Your task to perform on an android device: Go to eBay Image 0: 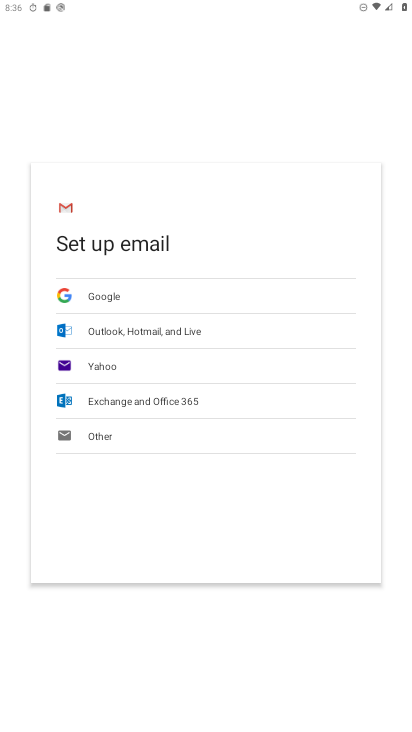
Step 0: press home button
Your task to perform on an android device: Go to eBay Image 1: 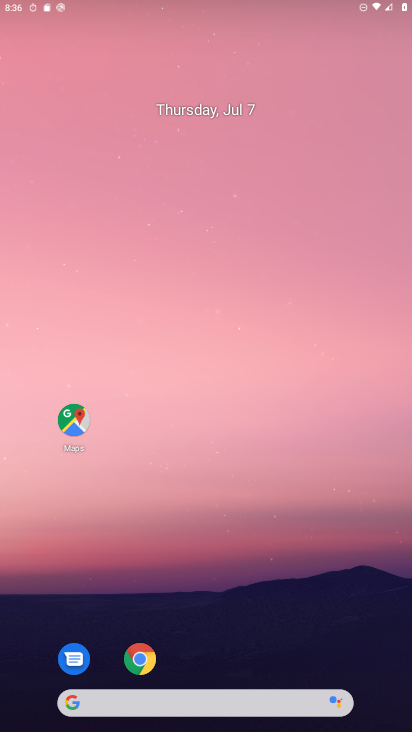
Step 1: drag from (363, 630) to (144, 20)
Your task to perform on an android device: Go to eBay Image 2: 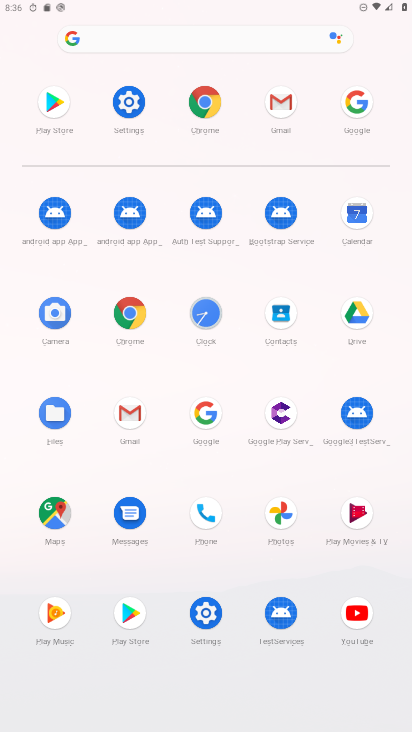
Step 2: click (204, 423)
Your task to perform on an android device: Go to eBay Image 3: 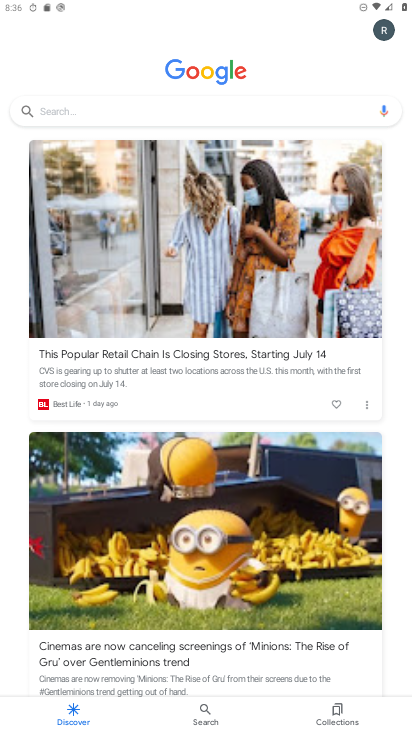
Step 3: click (96, 114)
Your task to perform on an android device: Go to eBay Image 4: 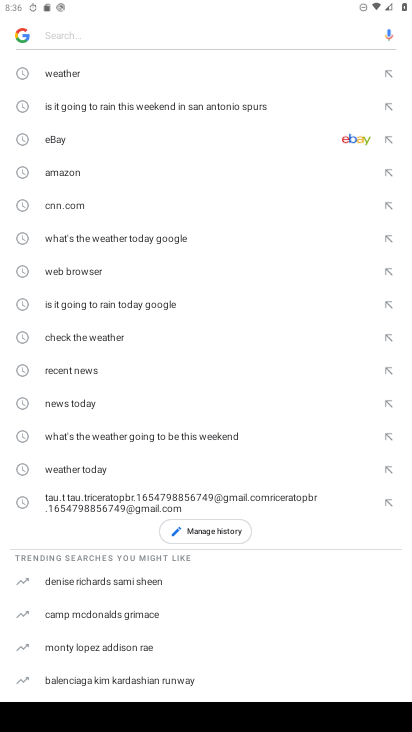
Step 4: click (55, 134)
Your task to perform on an android device: Go to eBay Image 5: 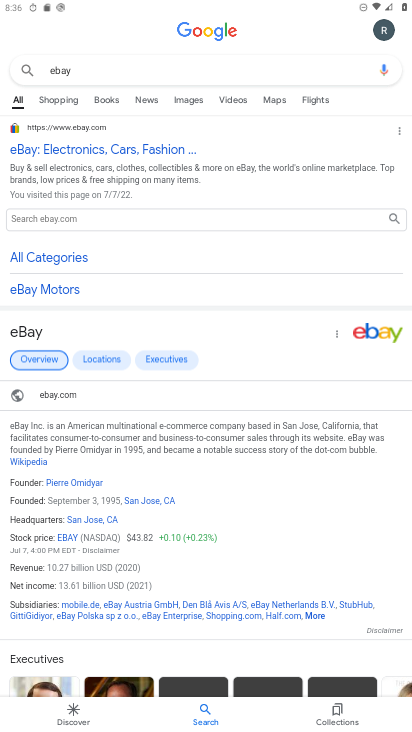
Step 5: task complete